Your task to perform on an android device: Open eBay Image 0: 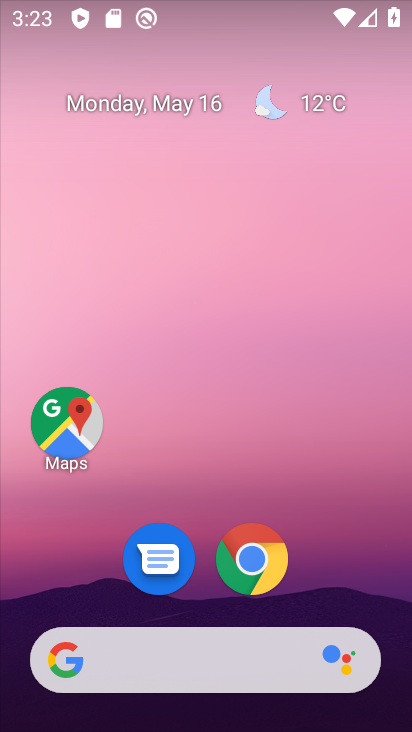
Step 0: click (244, 560)
Your task to perform on an android device: Open eBay Image 1: 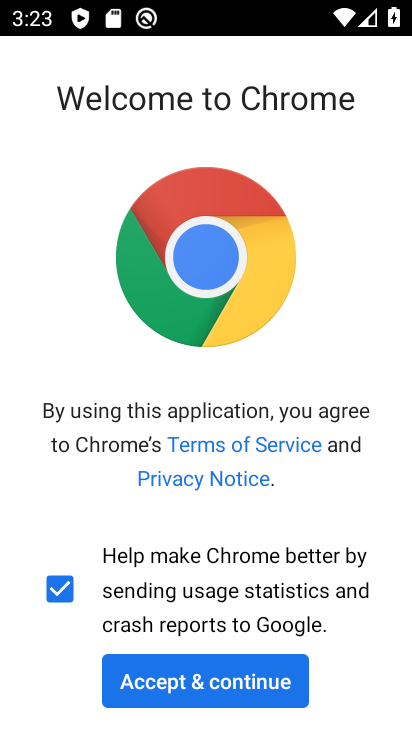
Step 1: click (223, 671)
Your task to perform on an android device: Open eBay Image 2: 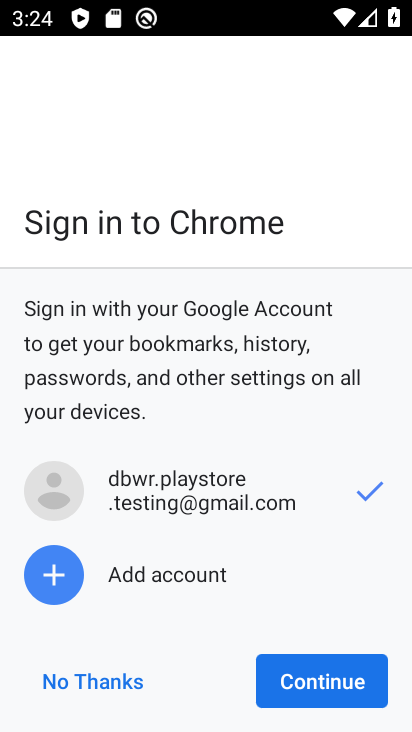
Step 2: click (309, 681)
Your task to perform on an android device: Open eBay Image 3: 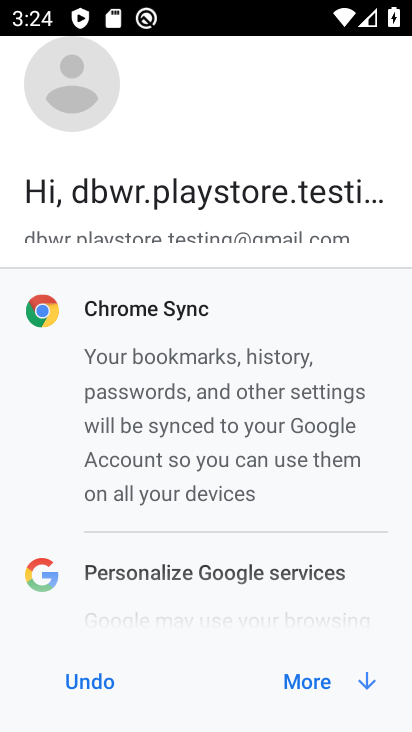
Step 3: click (309, 681)
Your task to perform on an android device: Open eBay Image 4: 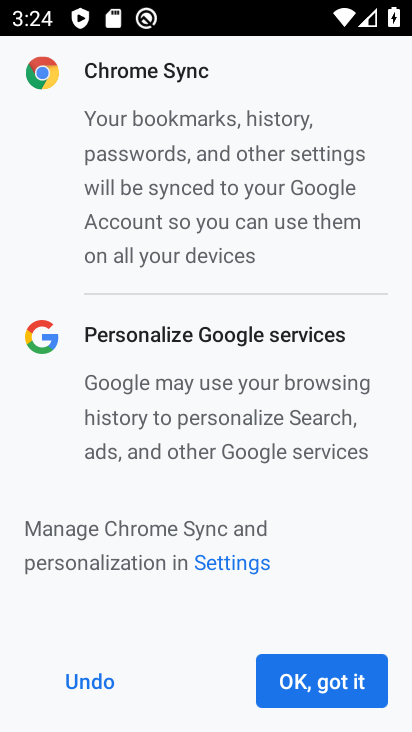
Step 4: click (309, 681)
Your task to perform on an android device: Open eBay Image 5: 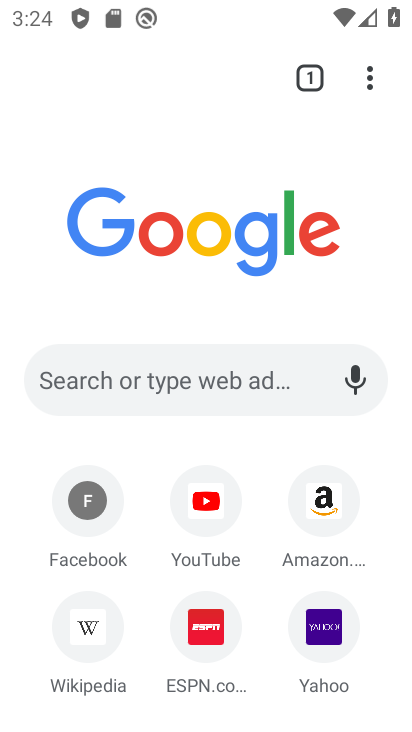
Step 5: click (157, 352)
Your task to perform on an android device: Open eBay Image 6: 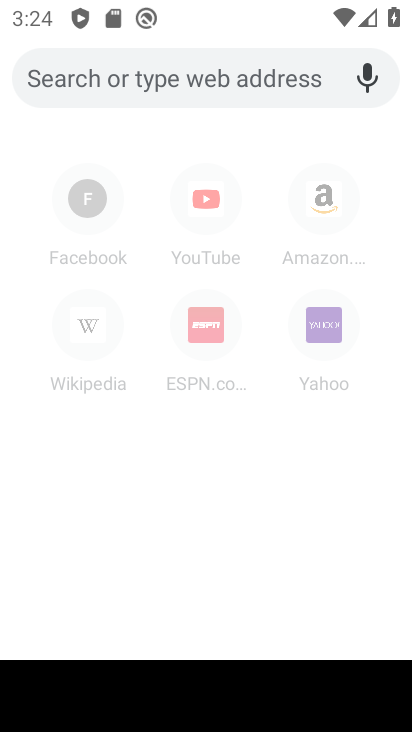
Step 6: type "ebay.com"
Your task to perform on an android device: Open eBay Image 7: 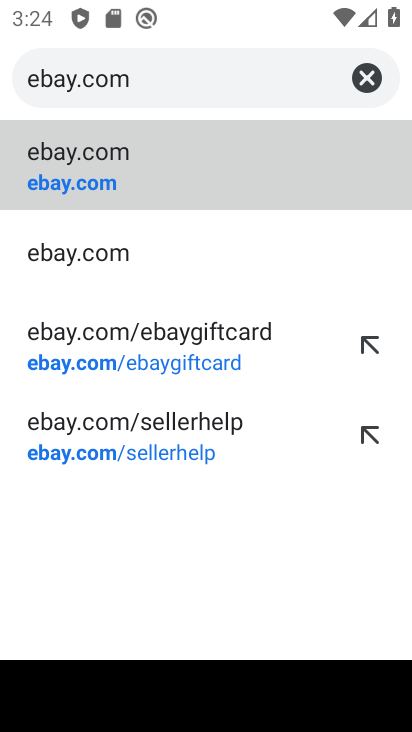
Step 7: click (250, 310)
Your task to perform on an android device: Open eBay Image 8: 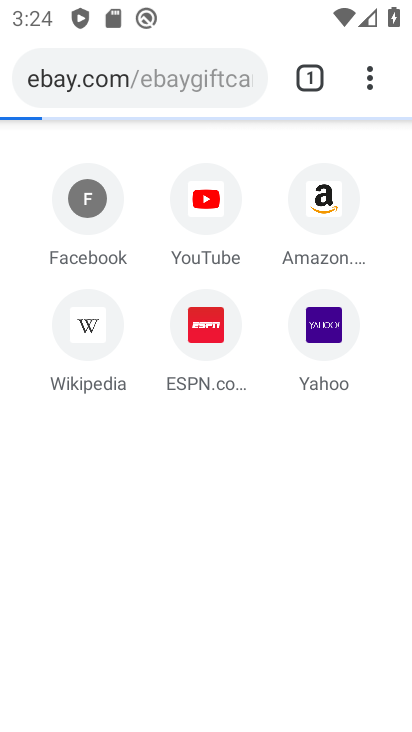
Step 8: task complete